Your task to perform on an android device: toggle data saver in the chrome app Image 0: 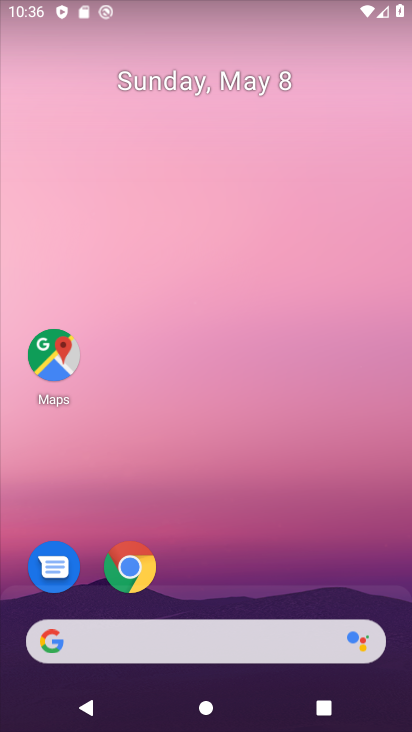
Step 0: drag from (211, 592) to (302, 48)
Your task to perform on an android device: toggle data saver in the chrome app Image 1: 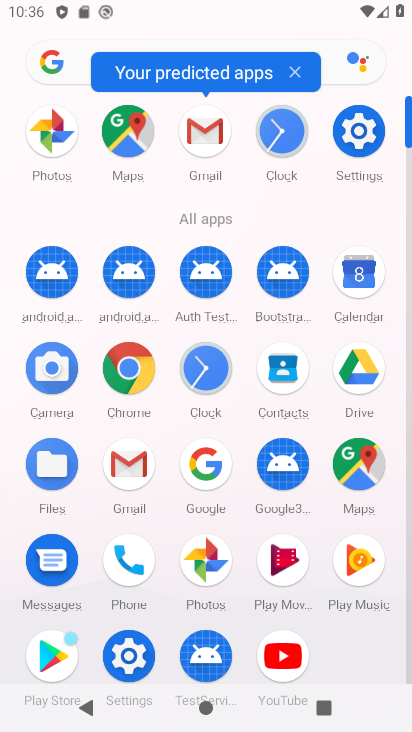
Step 1: click (132, 360)
Your task to perform on an android device: toggle data saver in the chrome app Image 2: 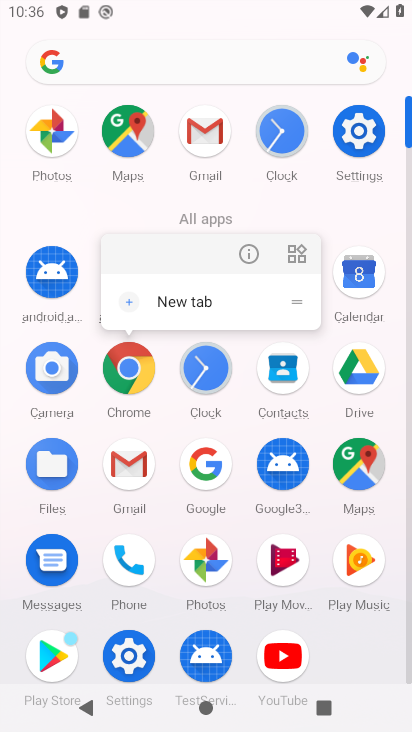
Step 2: click (123, 362)
Your task to perform on an android device: toggle data saver in the chrome app Image 3: 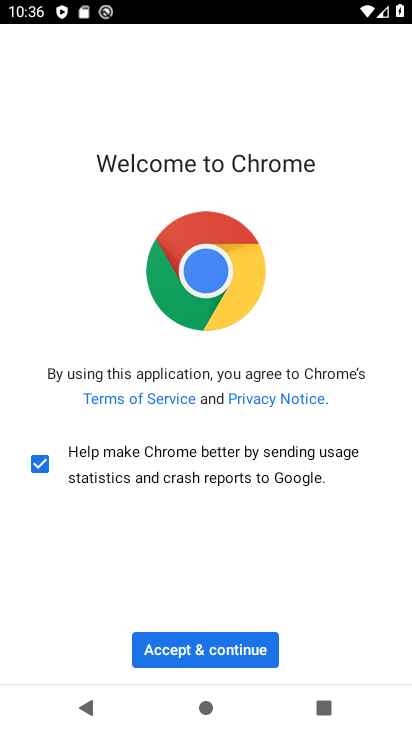
Step 3: click (215, 645)
Your task to perform on an android device: toggle data saver in the chrome app Image 4: 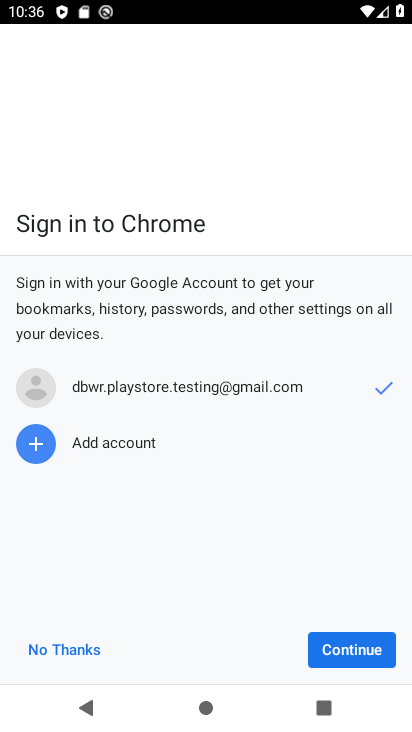
Step 4: click (370, 654)
Your task to perform on an android device: toggle data saver in the chrome app Image 5: 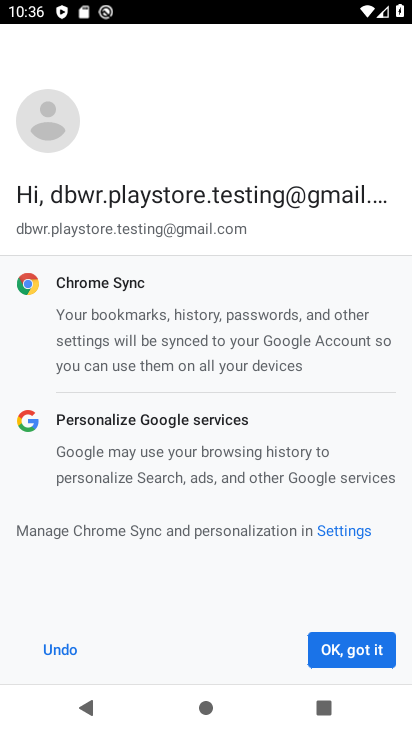
Step 5: click (365, 653)
Your task to perform on an android device: toggle data saver in the chrome app Image 6: 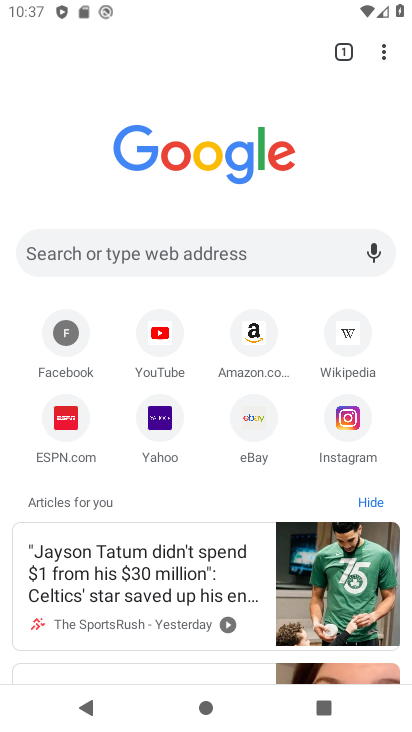
Step 6: click (389, 44)
Your task to perform on an android device: toggle data saver in the chrome app Image 7: 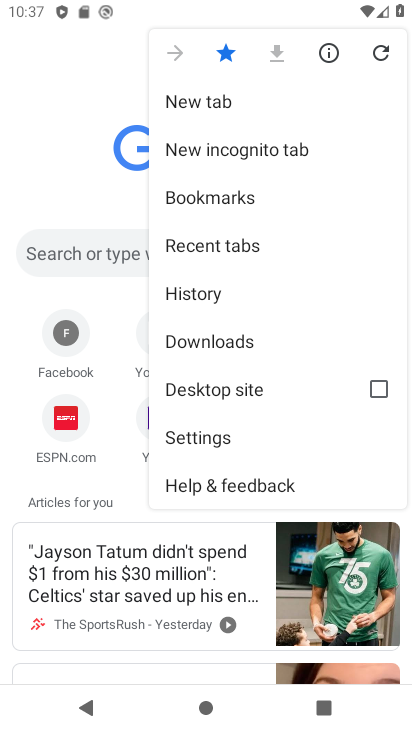
Step 7: click (241, 435)
Your task to perform on an android device: toggle data saver in the chrome app Image 8: 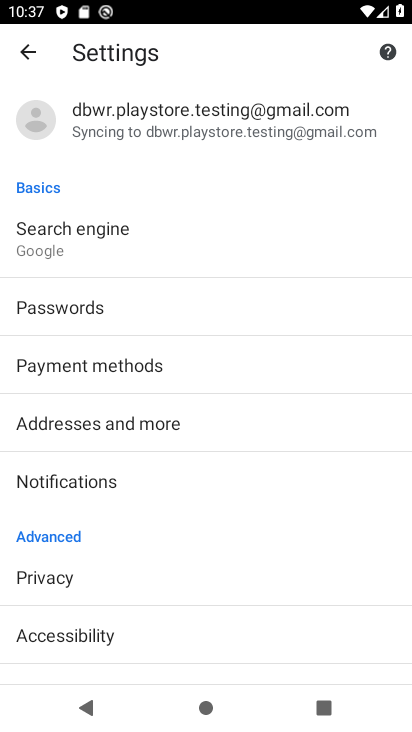
Step 8: drag from (171, 590) to (230, 59)
Your task to perform on an android device: toggle data saver in the chrome app Image 9: 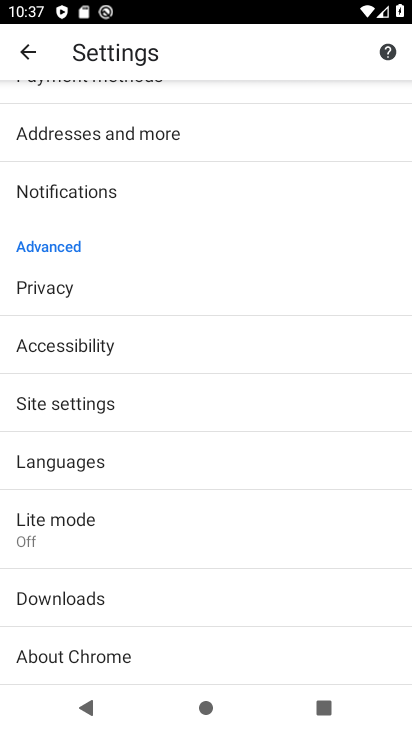
Step 9: click (127, 523)
Your task to perform on an android device: toggle data saver in the chrome app Image 10: 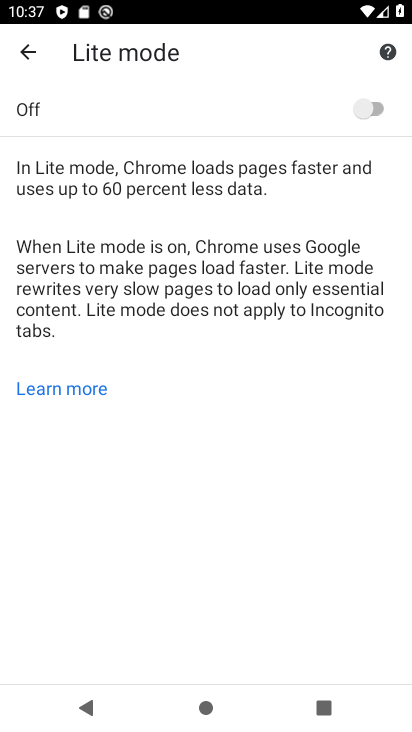
Step 10: click (374, 102)
Your task to perform on an android device: toggle data saver in the chrome app Image 11: 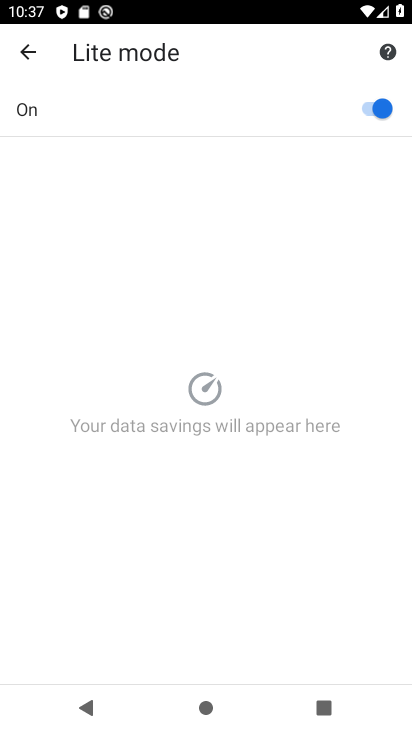
Step 11: task complete